Your task to perform on an android device: turn off data saver in the chrome app Image 0: 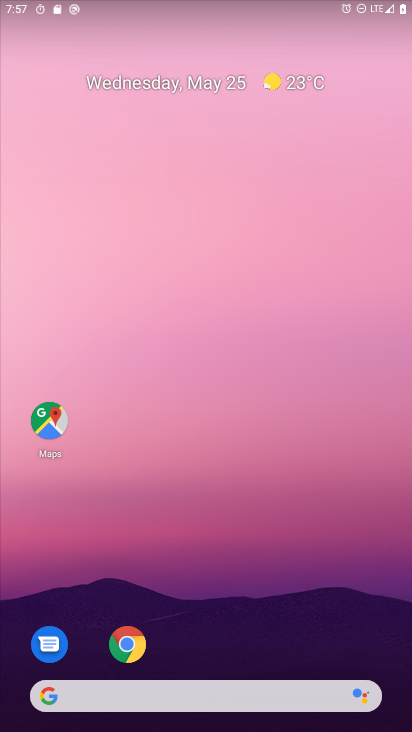
Step 0: drag from (357, 615) to (267, 17)
Your task to perform on an android device: turn off data saver in the chrome app Image 1: 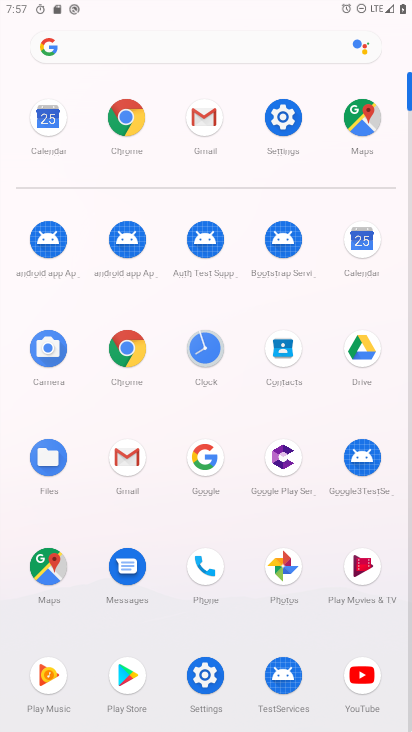
Step 1: click (139, 135)
Your task to perform on an android device: turn off data saver in the chrome app Image 2: 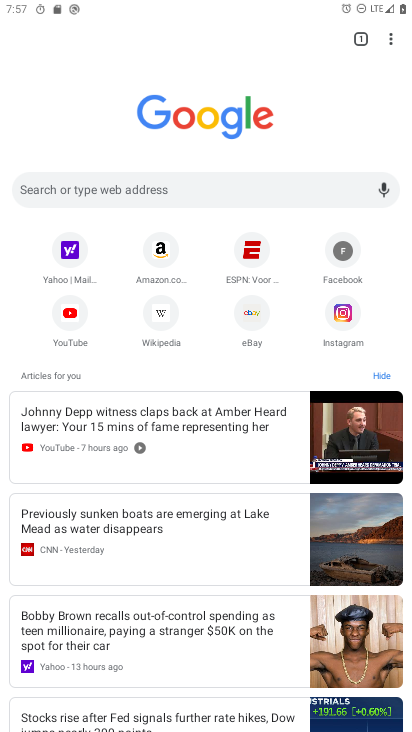
Step 2: click (392, 33)
Your task to perform on an android device: turn off data saver in the chrome app Image 3: 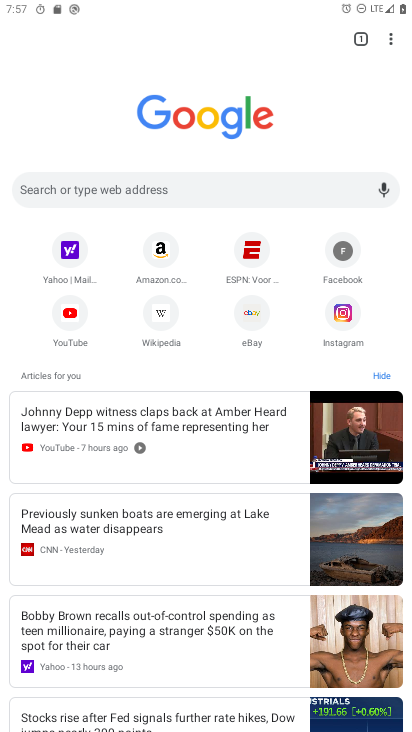
Step 3: click (392, 33)
Your task to perform on an android device: turn off data saver in the chrome app Image 4: 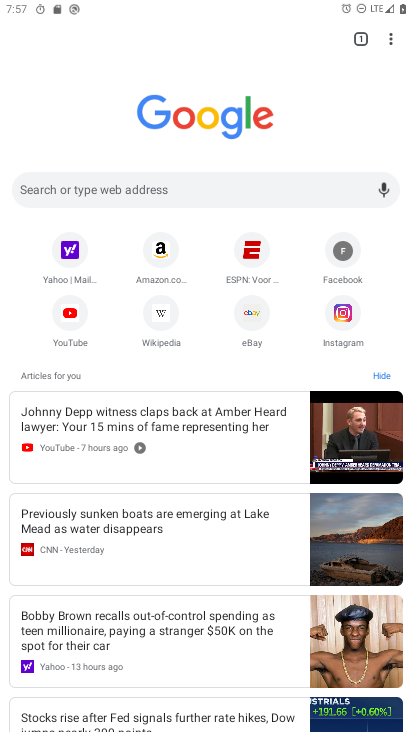
Step 4: click (387, 33)
Your task to perform on an android device: turn off data saver in the chrome app Image 5: 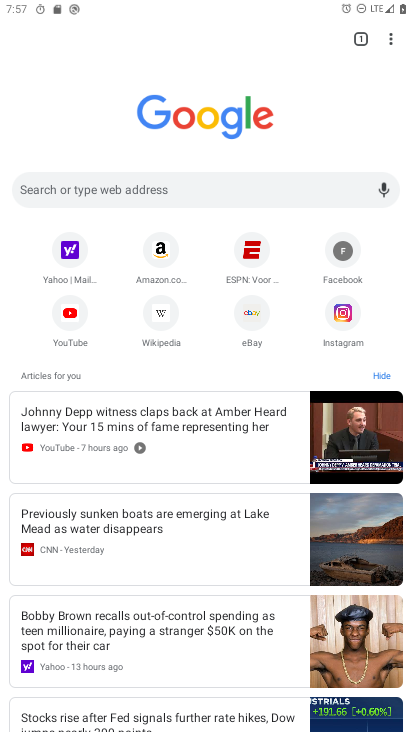
Step 5: click (387, 33)
Your task to perform on an android device: turn off data saver in the chrome app Image 6: 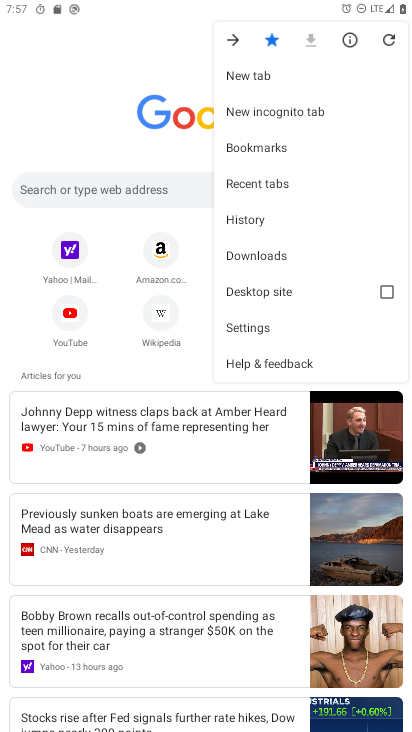
Step 6: click (271, 334)
Your task to perform on an android device: turn off data saver in the chrome app Image 7: 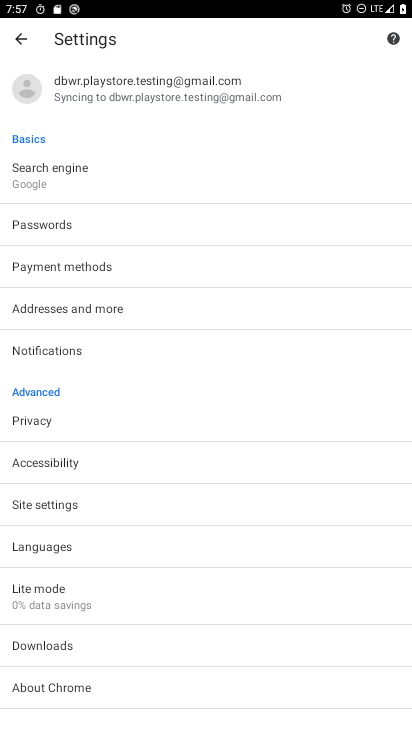
Step 7: click (62, 614)
Your task to perform on an android device: turn off data saver in the chrome app Image 8: 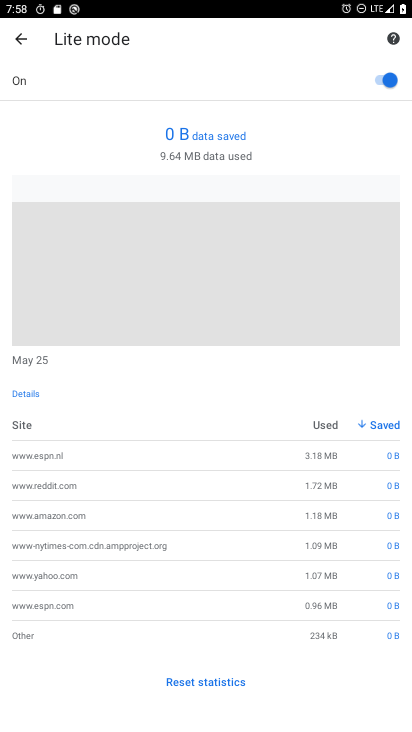
Step 8: click (387, 79)
Your task to perform on an android device: turn off data saver in the chrome app Image 9: 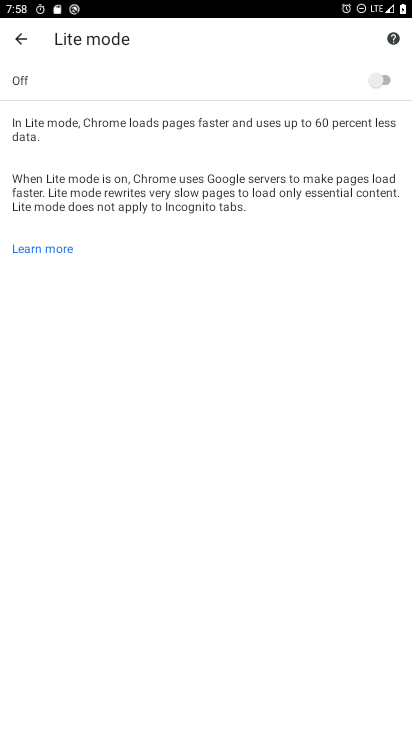
Step 9: task complete